Your task to perform on an android device: turn on showing notifications on the lock screen Image 0: 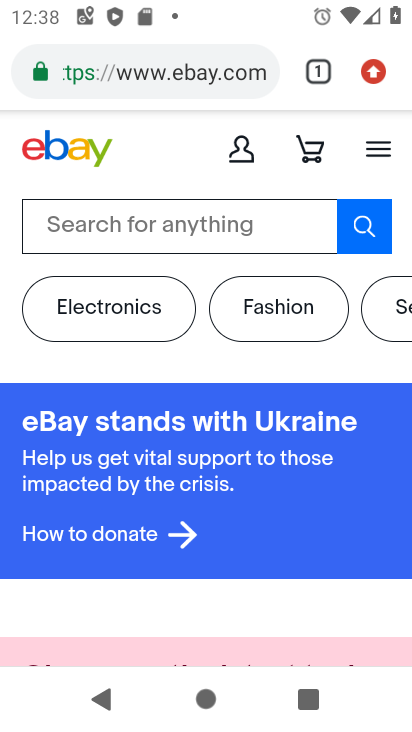
Step 0: press home button
Your task to perform on an android device: turn on showing notifications on the lock screen Image 1: 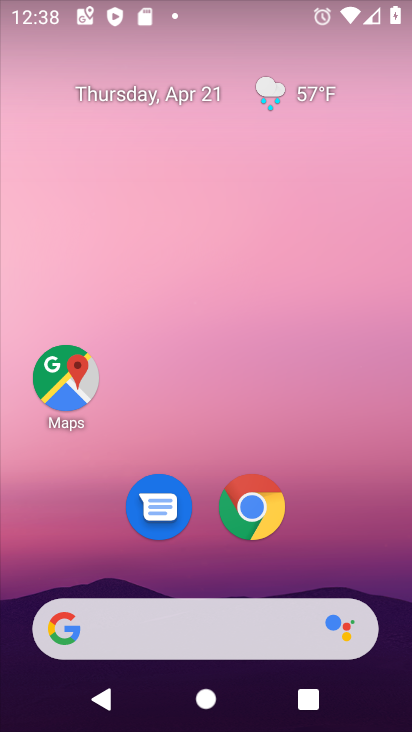
Step 1: drag from (209, 431) to (293, 3)
Your task to perform on an android device: turn on showing notifications on the lock screen Image 2: 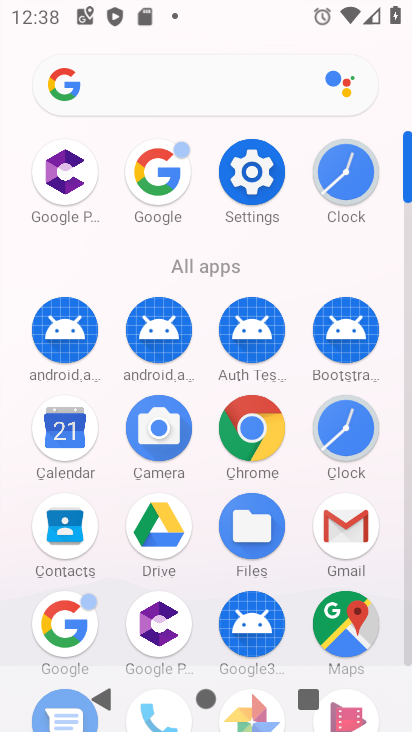
Step 2: click (253, 172)
Your task to perform on an android device: turn on showing notifications on the lock screen Image 3: 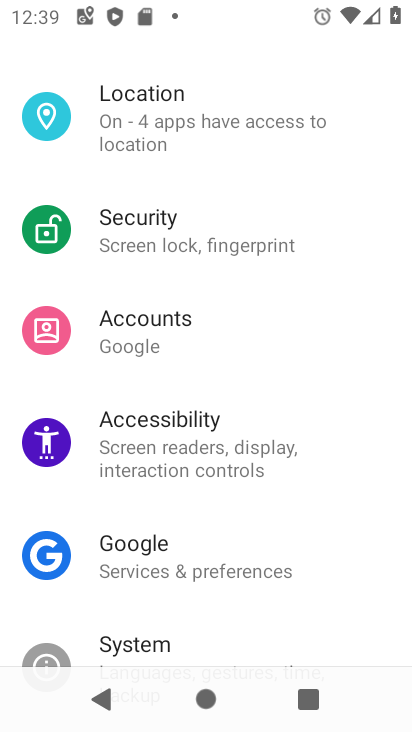
Step 3: drag from (244, 340) to (235, 417)
Your task to perform on an android device: turn on showing notifications on the lock screen Image 4: 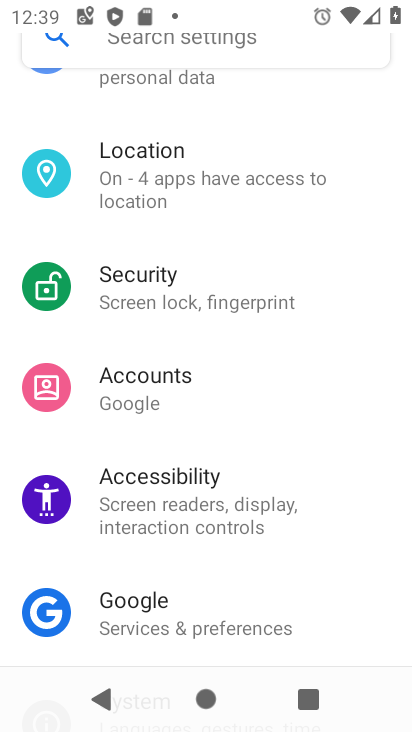
Step 4: drag from (254, 245) to (248, 318)
Your task to perform on an android device: turn on showing notifications on the lock screen Image 5: 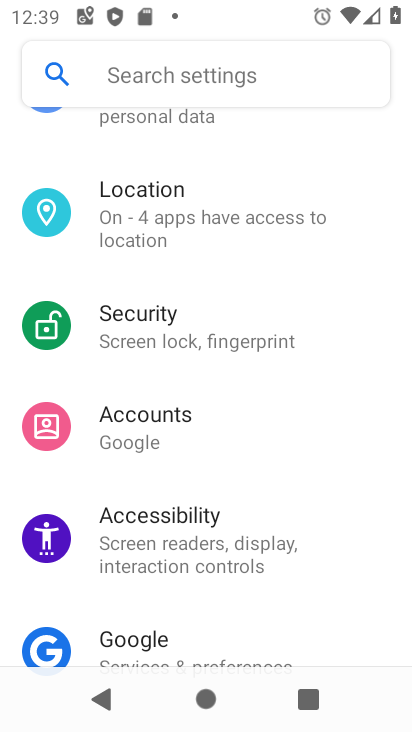
Step 5: drag from (244, 255) to (234, 346)
Your task to perform on an android device: turn on showing notifications on the lock screen Image 6: 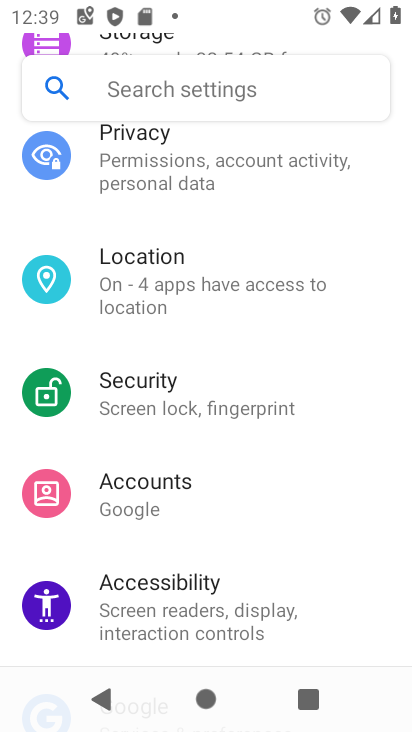
Step 6: drag from (287, 220) to (262, 360)
Your task to perform on an android device: turn on showing notifications on the lock screen Image 7: 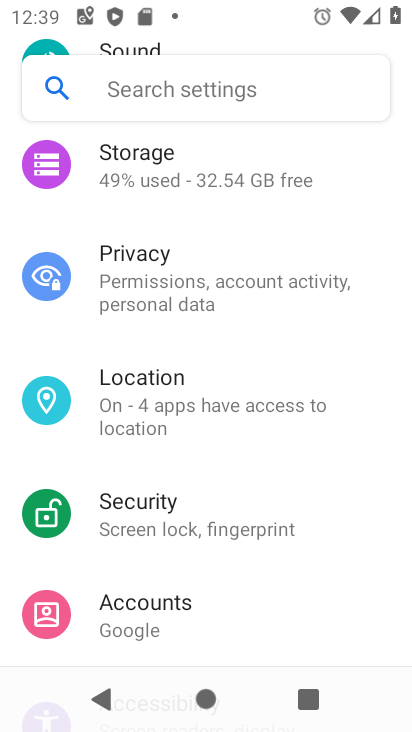
Step 7: drag from (265, 252) to (257, 349)
Your task to perform on an android device: turn on showing notifications on the lock screen Image 8: 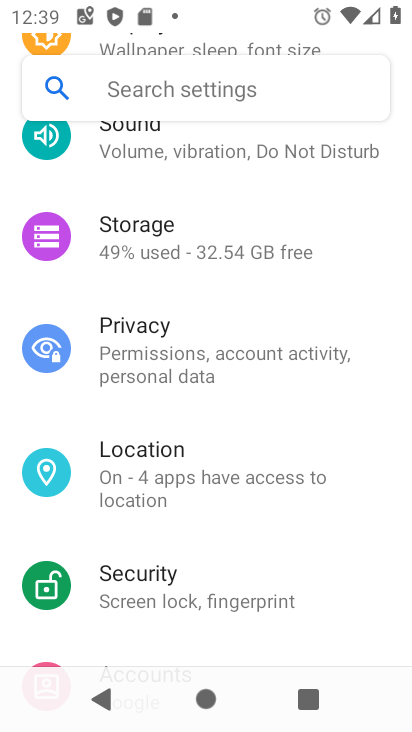
Step 8: drag from (263, 193) to (259, 294)
Your task to perform on an android device: turn on showing notifications on the lock screen Image 9: 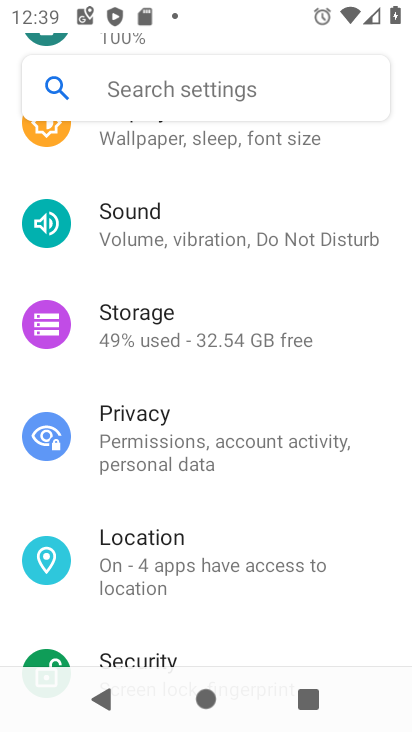
Step 9: drag from (245, 190) to (255, 269)
Your task to perform on an android device: turn on showing notifications on the lock screen Image 10: 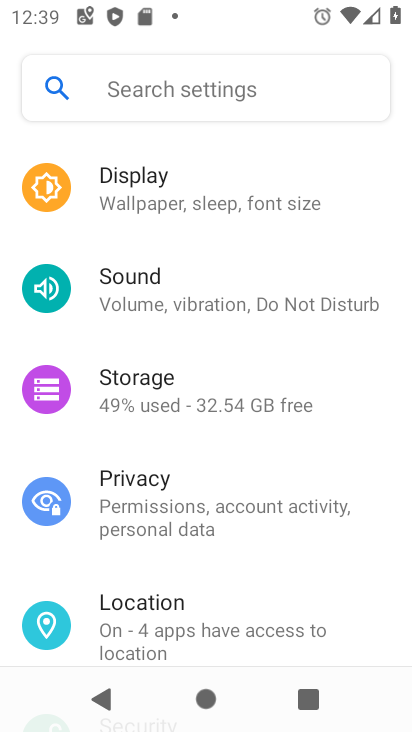
Step 10: drag from (251, 165) to (256, 268)
Your task to perform on an android device: turn on showing notifications on the lock screen Image 11: 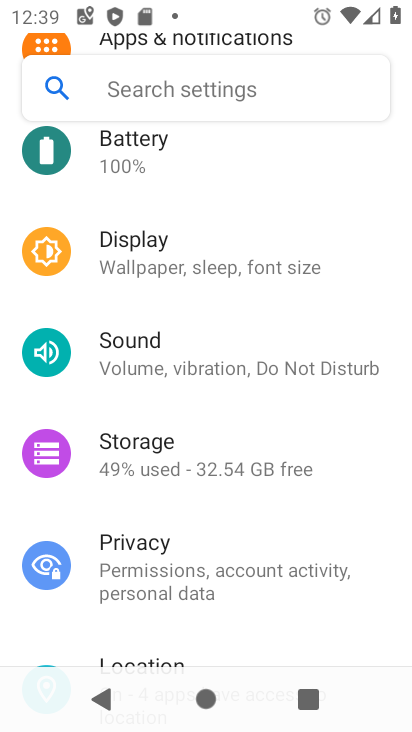
Step 11: drag from (258, 177) to (250, 264)
Your task to perform on an android device: turn on showing notifications on the lock screen Image 12: 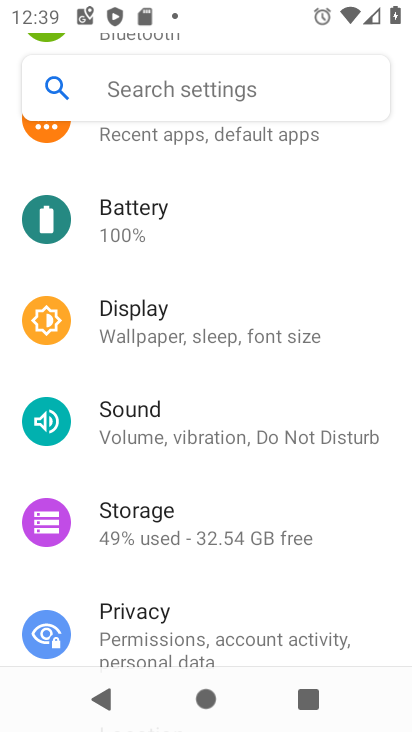
Step 12: drag from (236, 199) to (236, 284)
Your task to perform on an android device: turn on showing notifications on the lock screen Image 13: 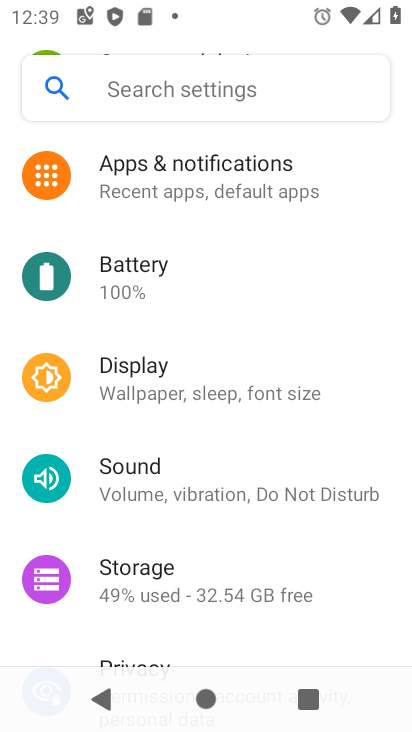
Step 13: drag from (249, 238) to (258, 302)
Your task to perform on an android device: turn on showing notifications on the lock screen Image 14: 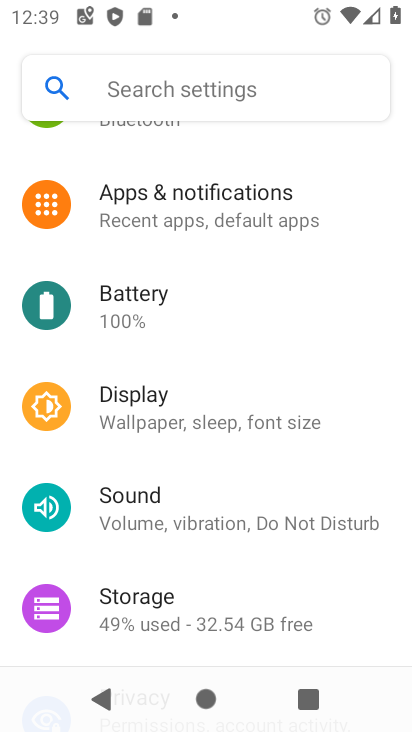
Step 14: click (228, 220)
Your task to perform on an android device: turn on showing notifications on the lock screen Image 15: 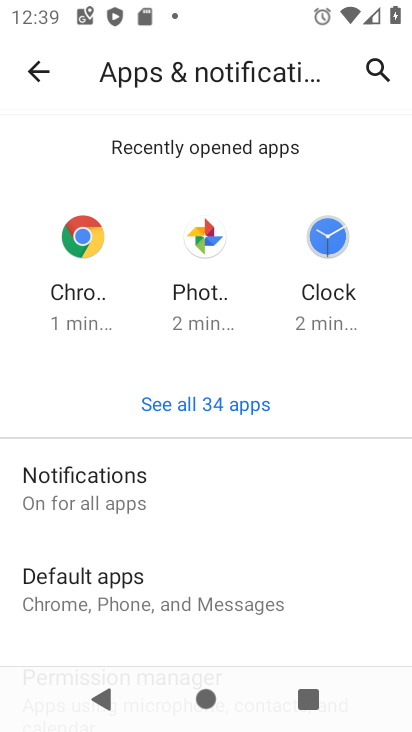
Step 15: click (106, 476)
Your task to perform on an android device: turn on showing notifications on the lock screen Image 16: 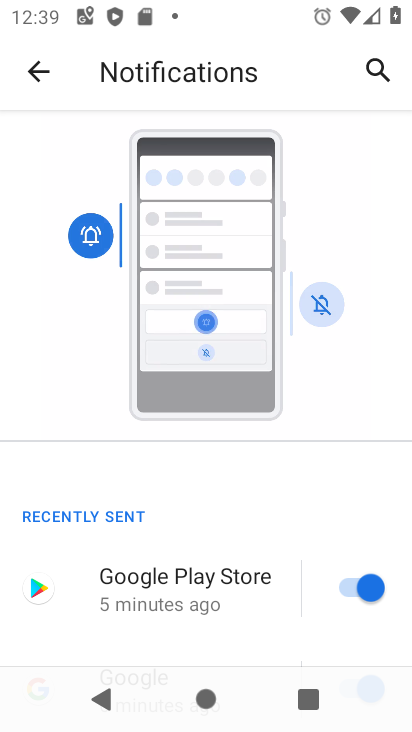
Step 16: drag from (185, 502) to (286, 227)
Your task to perform on an android device: turn on showing notifications on the lock screen Image 17: 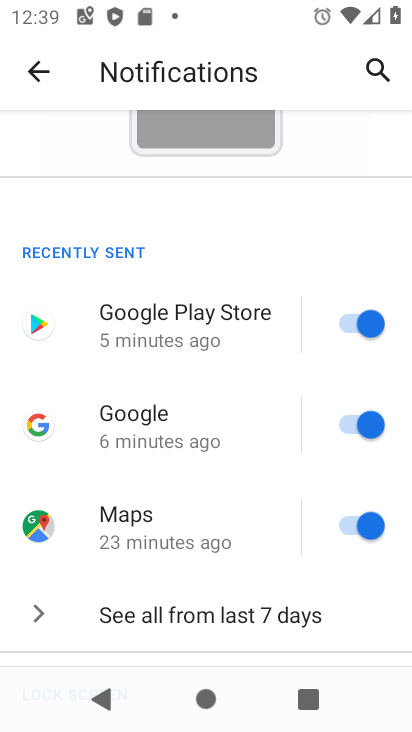
Step 17: drag from (212, 396) to (280, 230)
Your task to perform on an android device: turn on showing notifications on the lock screen Image 18: 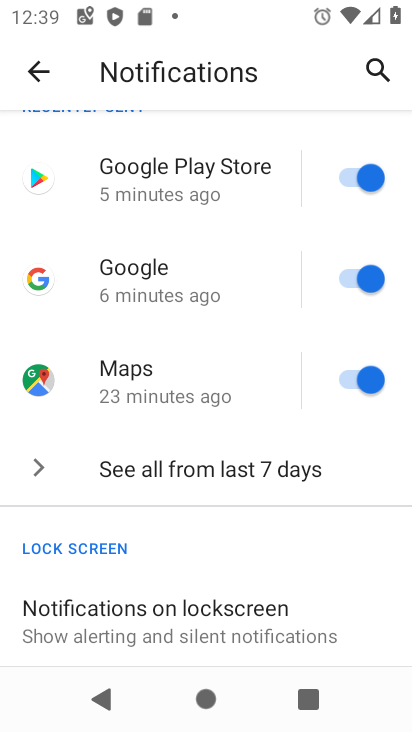
Step 18: drag from (188, 348) to (286, 202)
Your task to perform on an android device: turn on showing notifications on the lock screen Image 19: 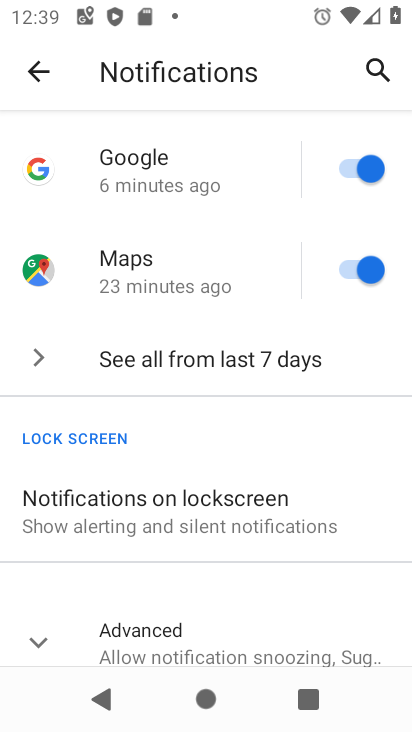
Step 19: drag from (174, 432) to (247, 299)
Your task to perform on an android device: turn on showing notifications on the lock screen Image 20: 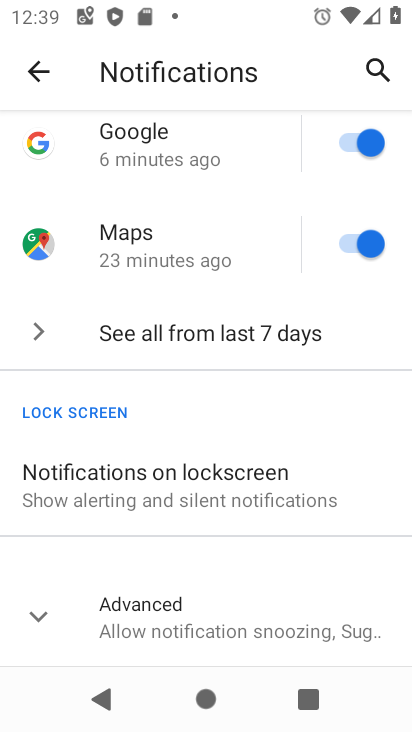
Step 20: click (173, 470)
Your task to perform on an android device: turn on showing notifications on the lock screen Image 21: 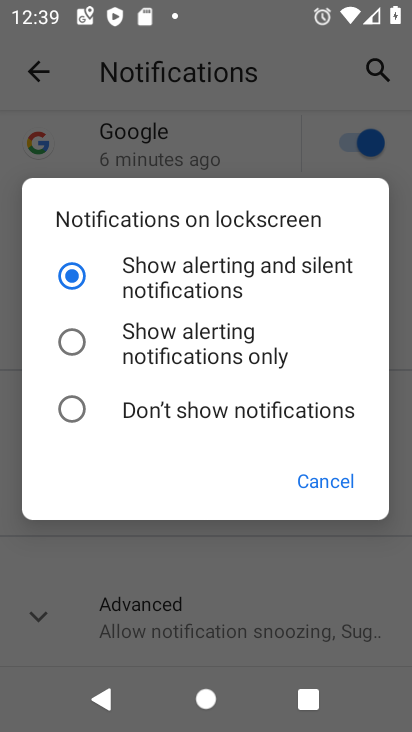
Step 21: click (75, 268)
Your task to perform on an android device: turn on showing notifications on the lock screen Image 22: 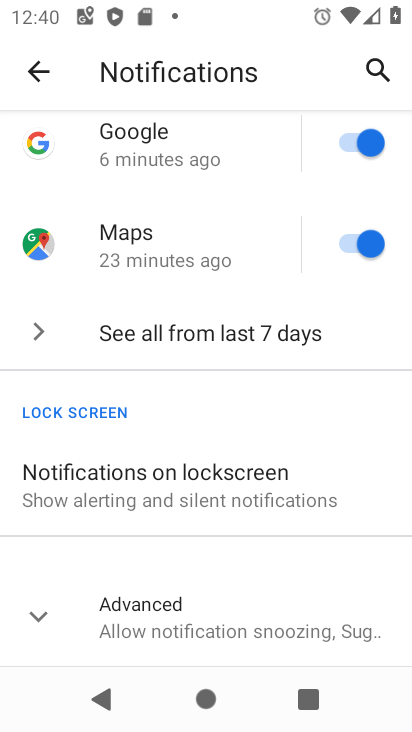
Step 22: task complete